Your task to perform on an android device: Open ESPN.com Image 0: 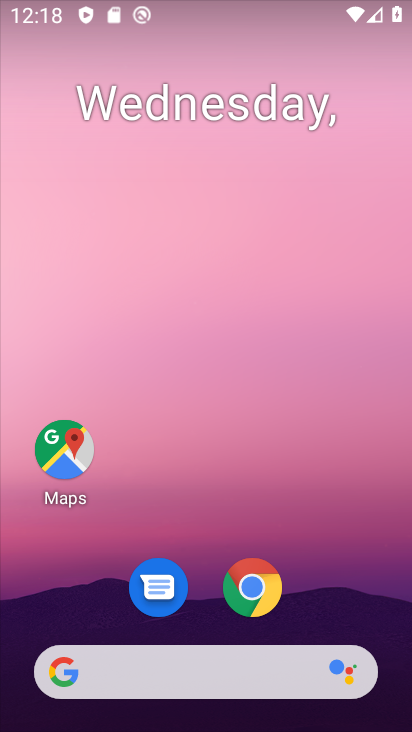
Step 0: drag from (297, 471) to (262, 198)
Your task to perform on an android device: Open ESPN.com Image 1: 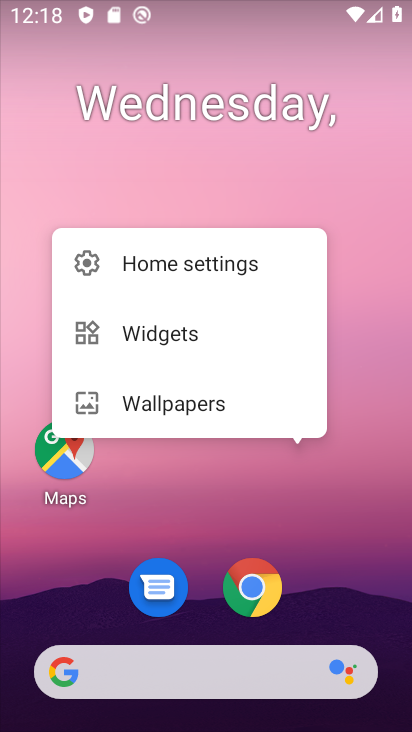
Step 1: drag from (329, 562) to (288, 166)
Your task to perform on an android device: Open ESPN.com Image 2: 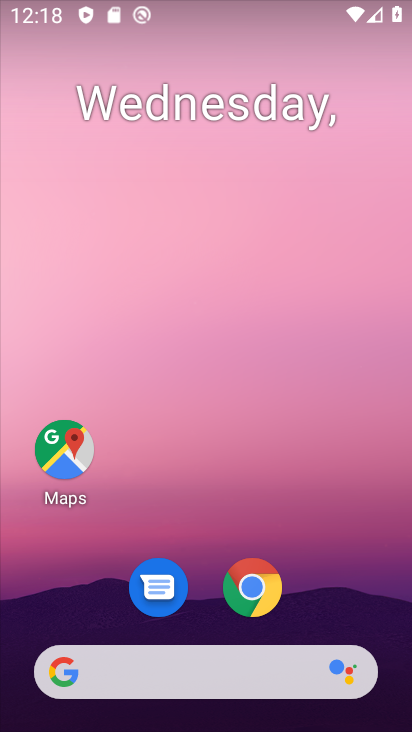
Step 2: drag from (285, 315) to (272, 9)
Your task to perform on an android device: Open ESPN.com Image 3: 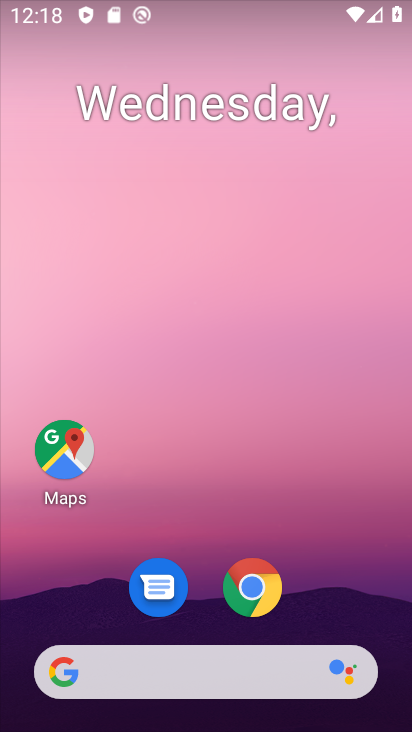
Step 3: drag from (296, 381) to (308, 18)
Your task to perform on an android device: Open ESPN.com Image 4: 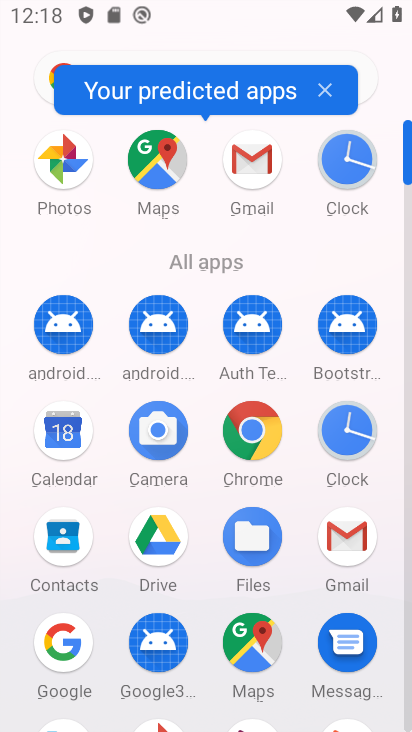
Step 4: click (257, 456)
Your task to perform on an android device: Open ESPN.com Image 5: 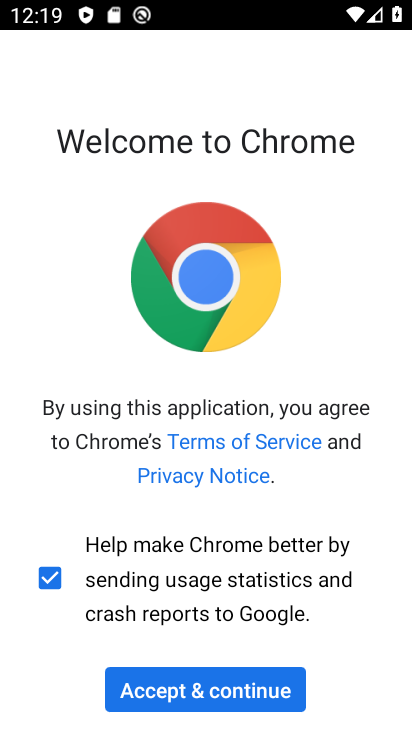
Step 5: click (193, 695)
Your task to perform on an android device: Open ESPN.com Image 6: 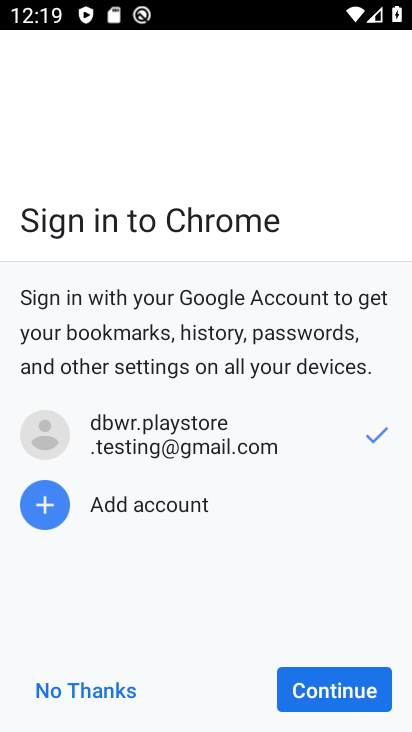
Step 6: click (325, 697)
Your task to perform on an android device: Open ESPN.com Image 7: 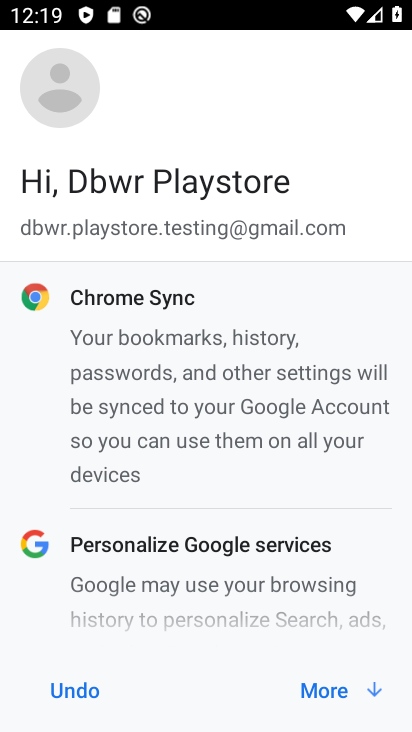
Step 7: click (325, 693)
Your task to perform on an android device: Open ESPN.com Image 8: 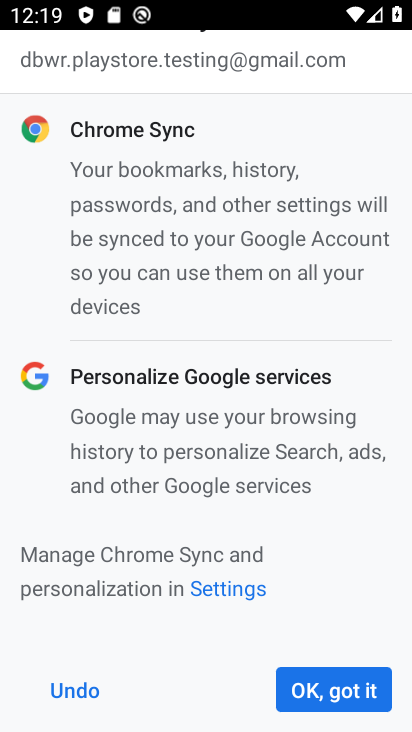
Step 8: click (325, 693)
Your task to perform on an android device: Open ESPN.com Image 9: 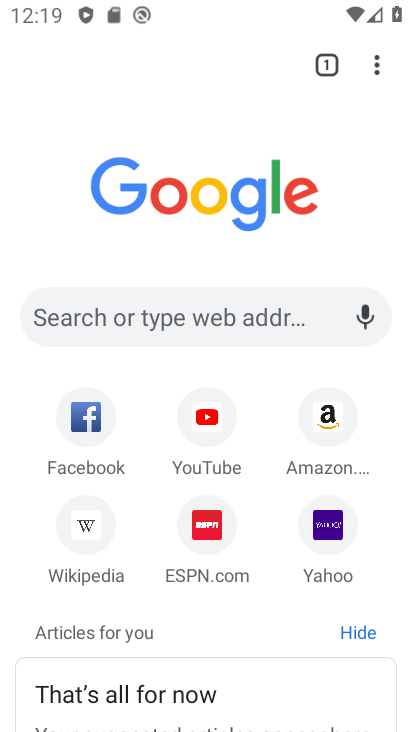
Step 9: click (200, 315)
Your task to perform on an android device: Open ESPN.com Image 10: 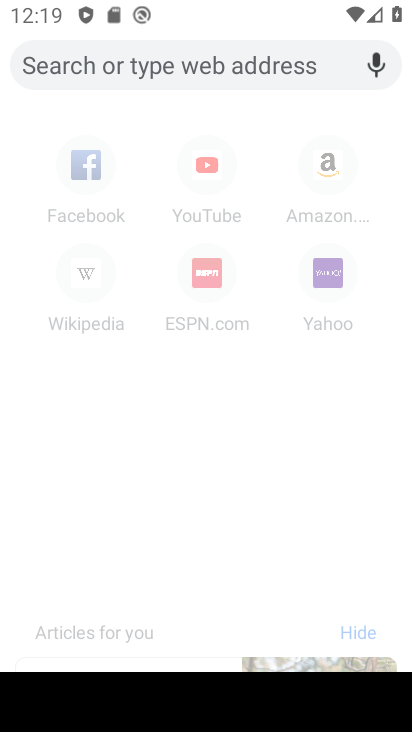
Step 10: click (197, 286)
Your task to perform on an android device: Open ESPN.com Image 11: 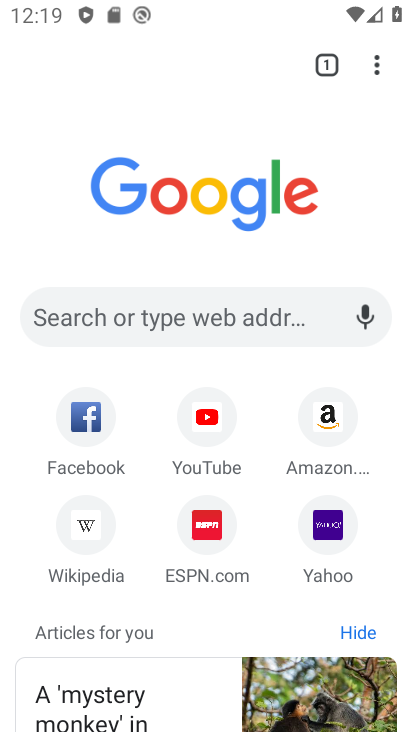
Step 11: click (210, 523)
Your task to perform on an android device: Open ESPN.com Image 12: 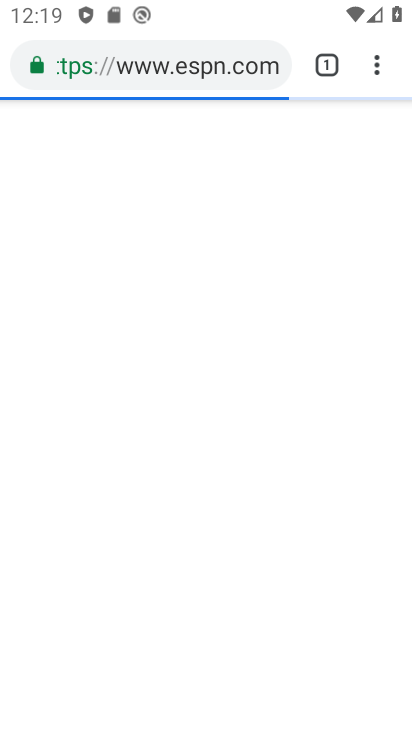
Step 12: click (205, 581)
Your task to perform on an android device: Open ESPN.com Image 13: 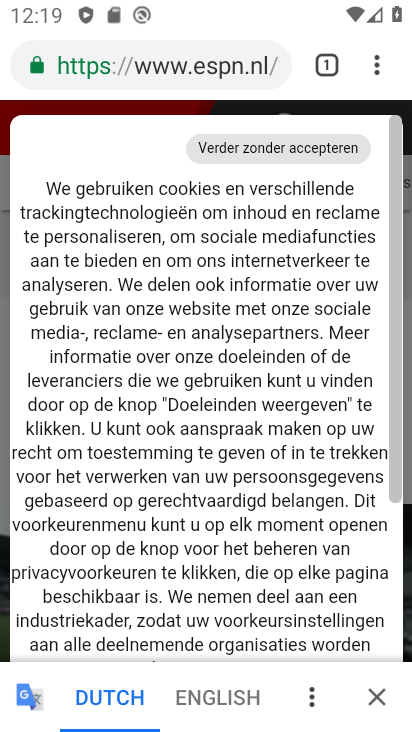
Step 13: task complete